Your task to perform on an android device: Add duracell triple a to the cart on walmart Image 0: 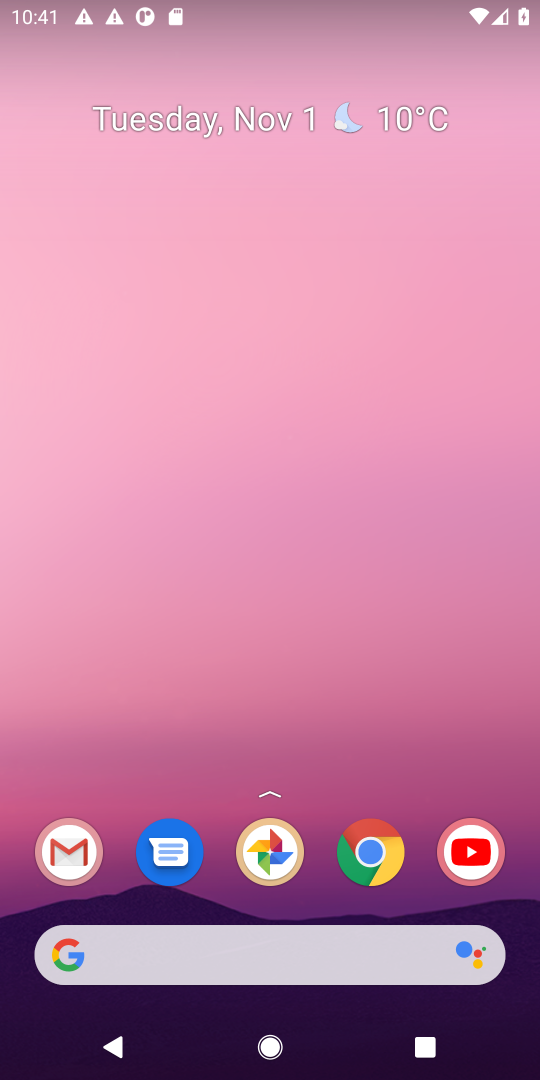
Step 0: press home button
Your task to perform on an android device: Add duracell triple a to the cart on walmart Image 1: 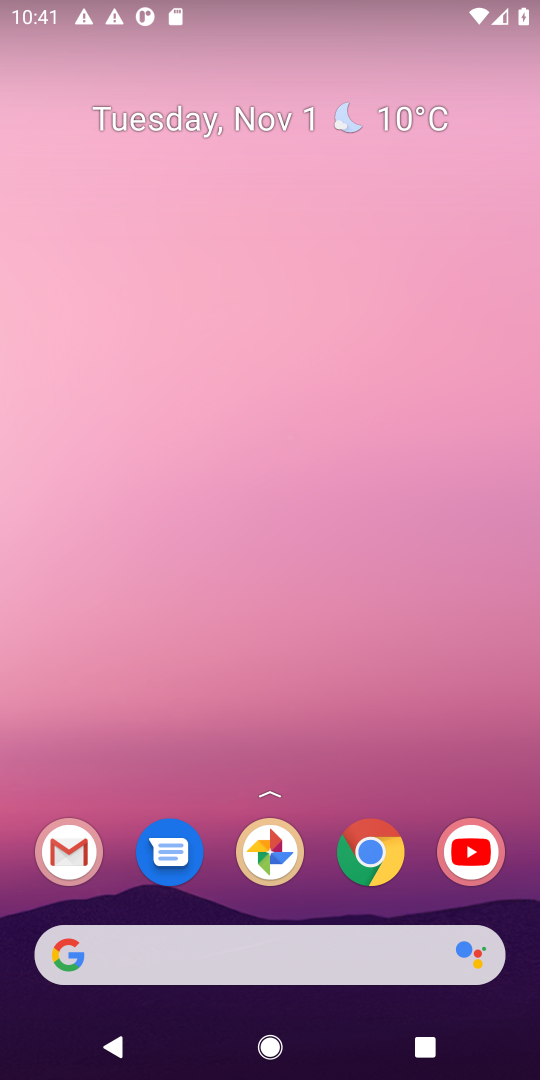
Step 1: click (71, 957)
Your task to perform on an android device: Add duracell triple a to the cart on walmart Image 2: 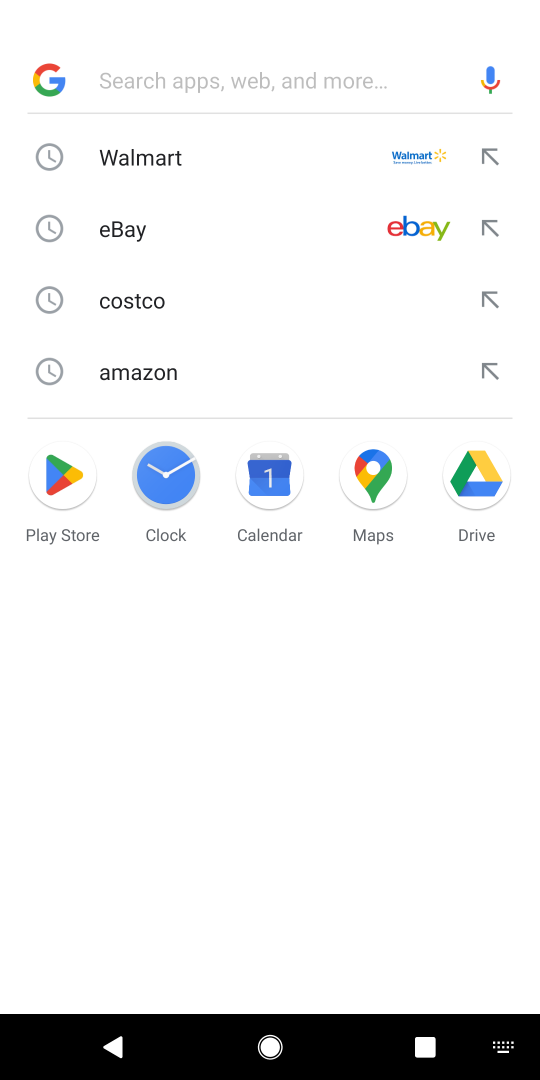
Step 2: click (118, 152)
Your task to perform on an android device: Add duracell triple a to the cart on walmart Image 3: 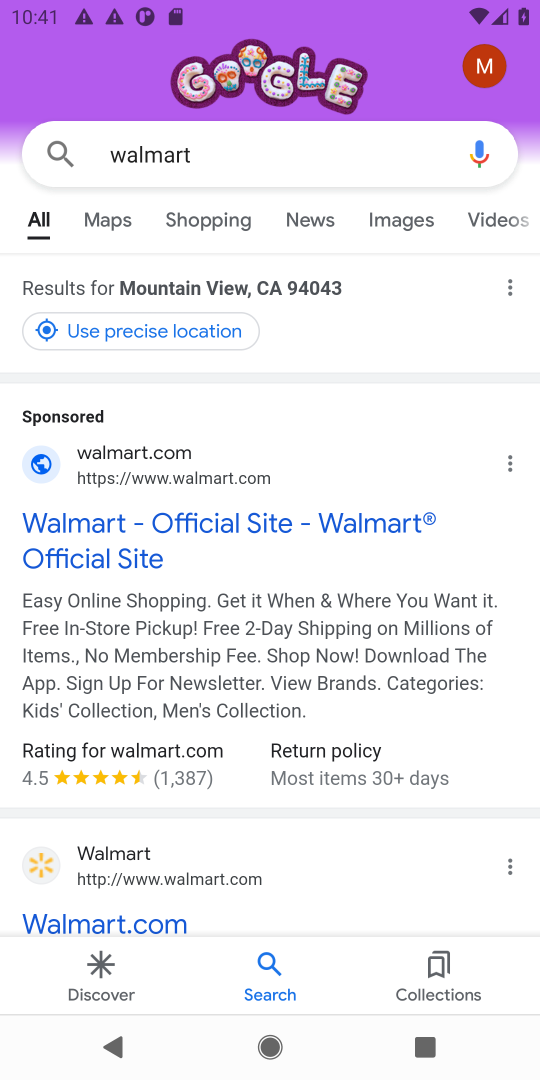
Step 3: click (145, 918)
Your task to perform on an android device: Add duracell triple a to the cart on walmart Image 4: 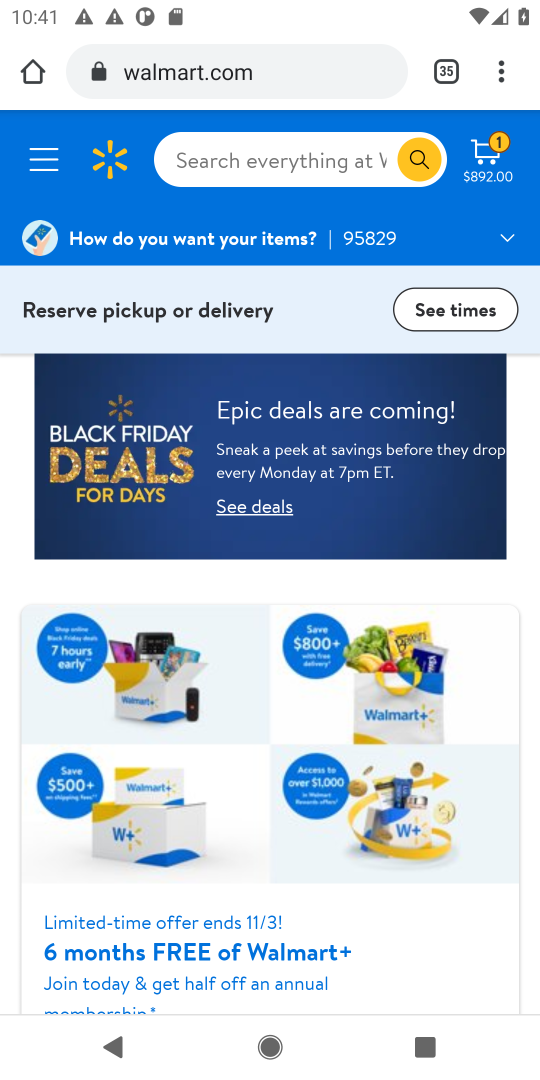
Step 4: click (245, 152)
Your task to perform on an android device: Add duracell triple a to the cart on walmart Image 5: 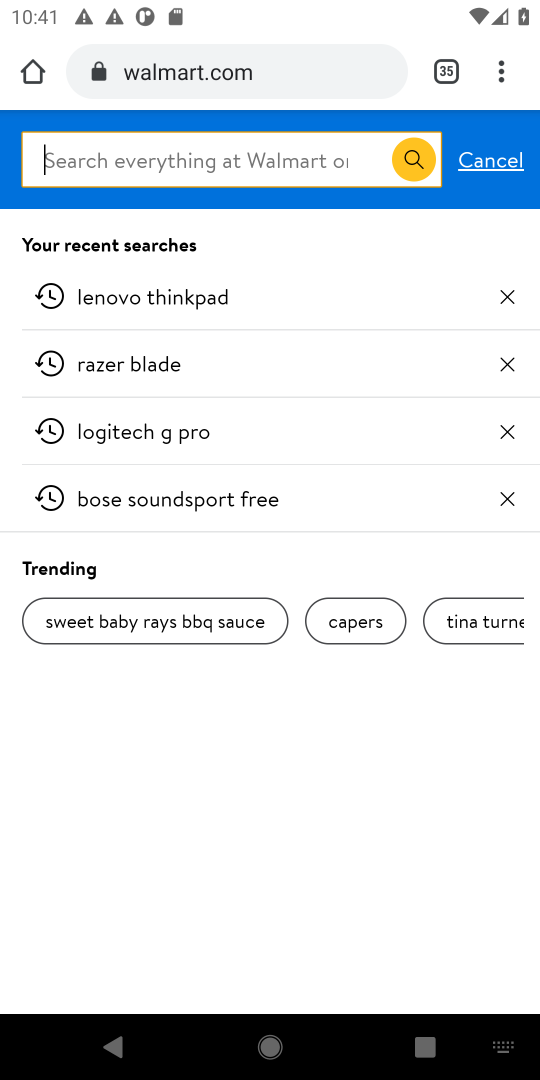
Step 5: type "duracell triple a"
Your task to perform on an android device: Add duracell triple a to the cart on walmart Image 6: 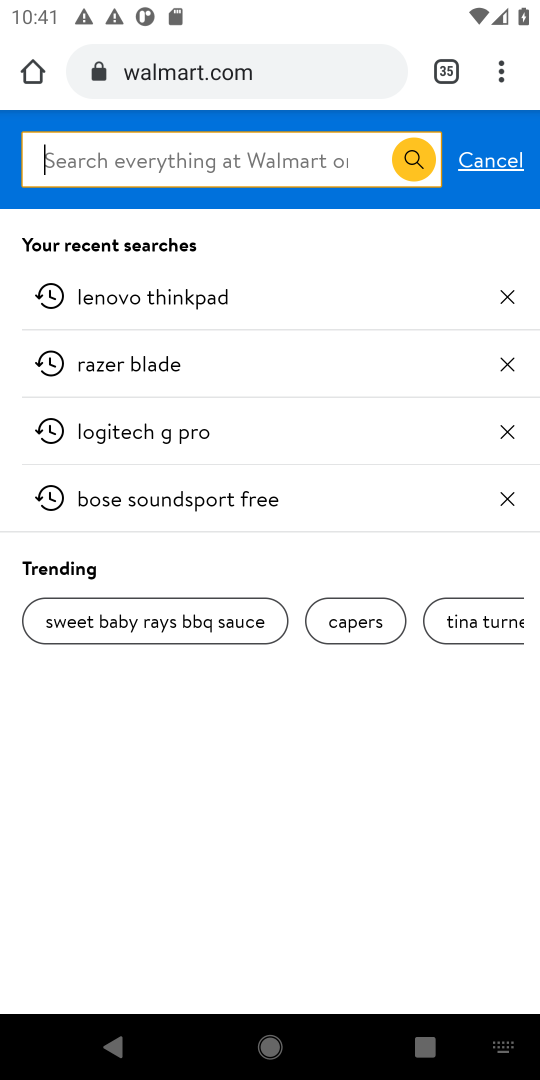
Step 6: click (140, 150)
Your task to perform on an android device: Add duracell triple a to the cart on walmart Image 7: 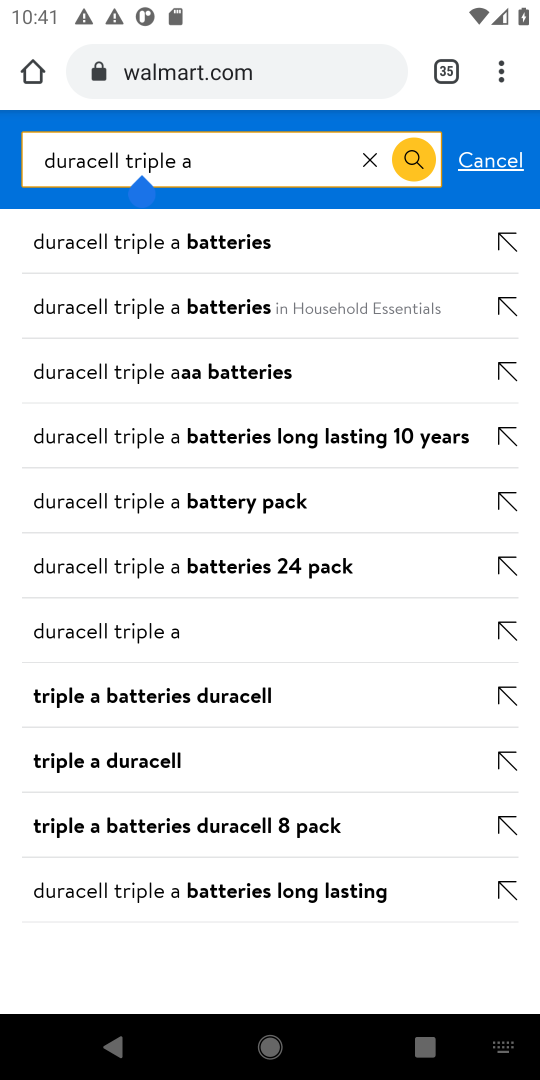
Step 7: press enter
Your task to perform on an android device: Add duracell triple a to the cart on walmart Image 8: 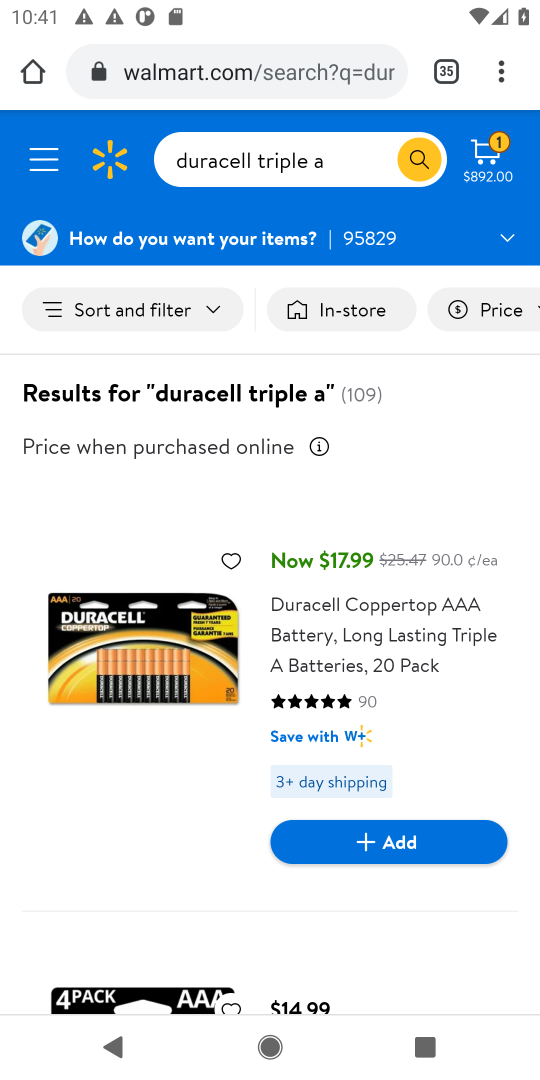
Step 8: click (400, 836)
Your task to perform on an android device: Add duracell triple a to the cart on walmart Image 9: 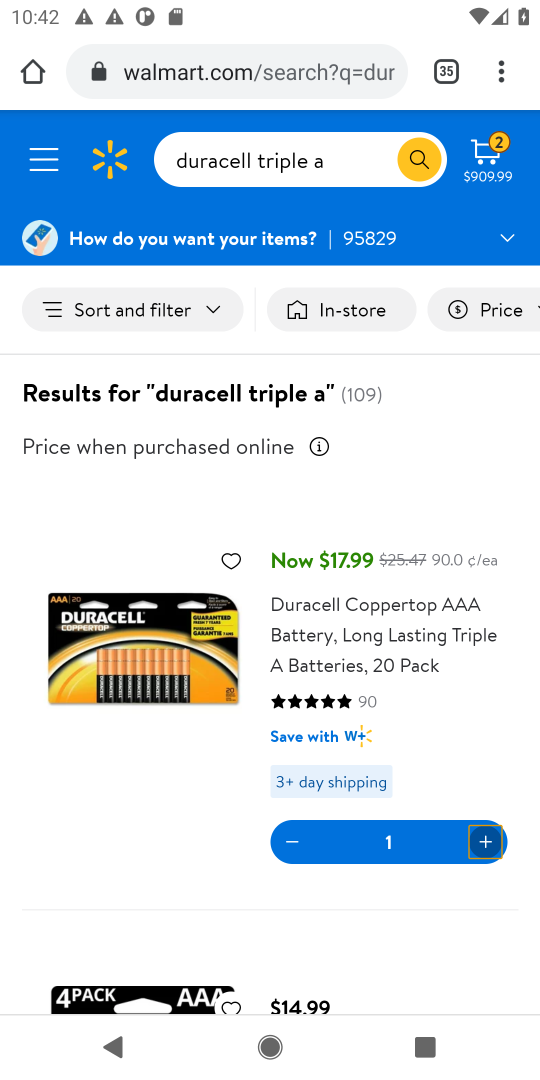
Step 9: task complete